Your task to perform on an android device: install app "Cash App" Image 0: 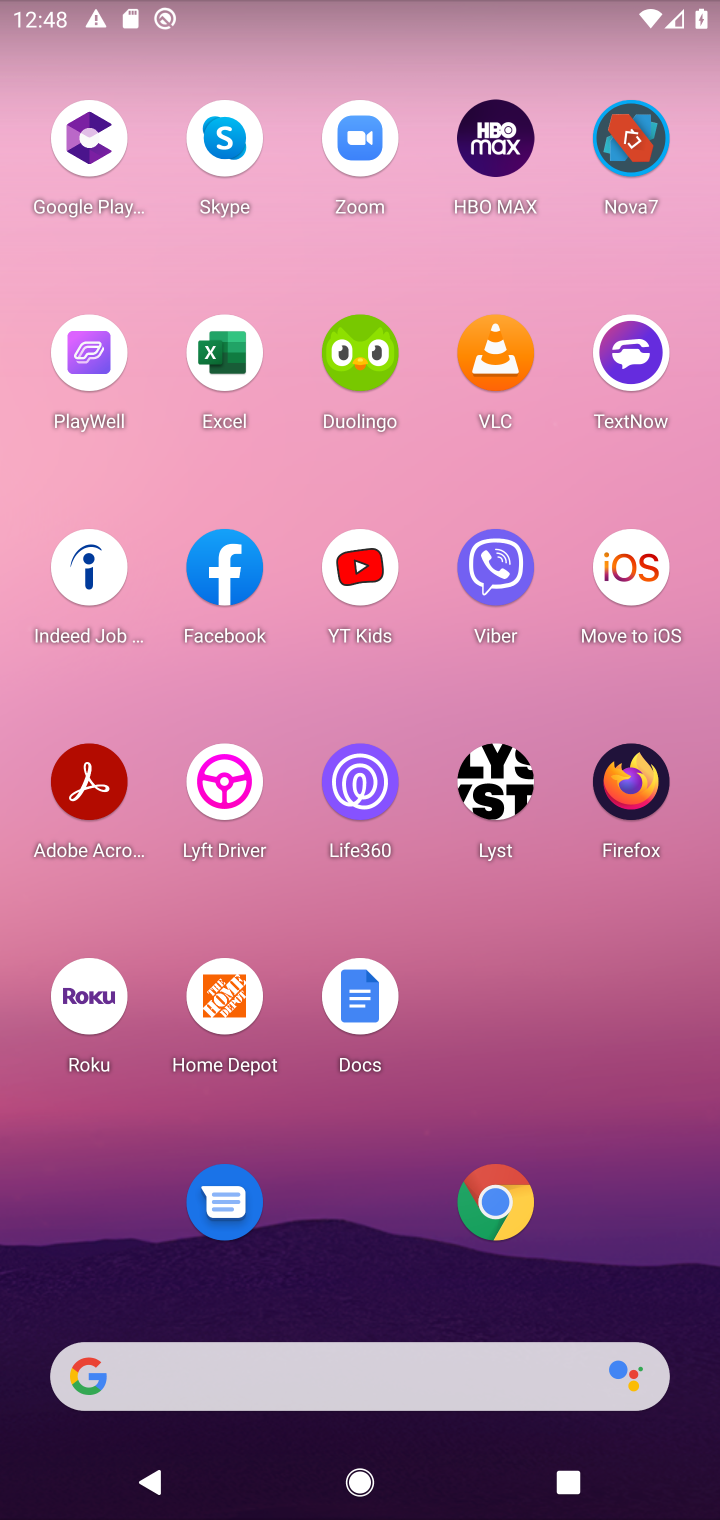
Step 0: press home button
Your task to perform on an android device: install app "Cash App" Image 1: 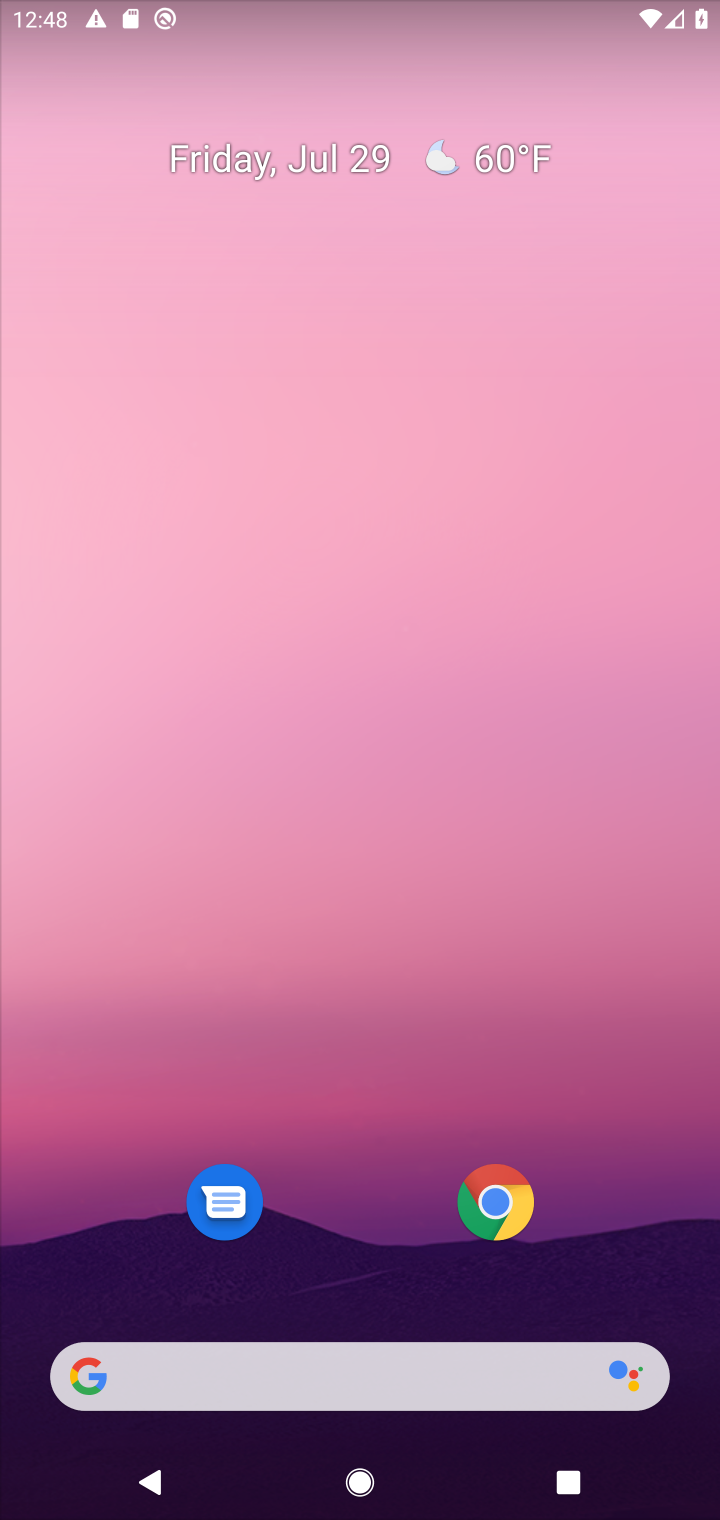
Step 1: click (392, 1378)
Your task to perform on an android device: install app "Cash App" Image 2: 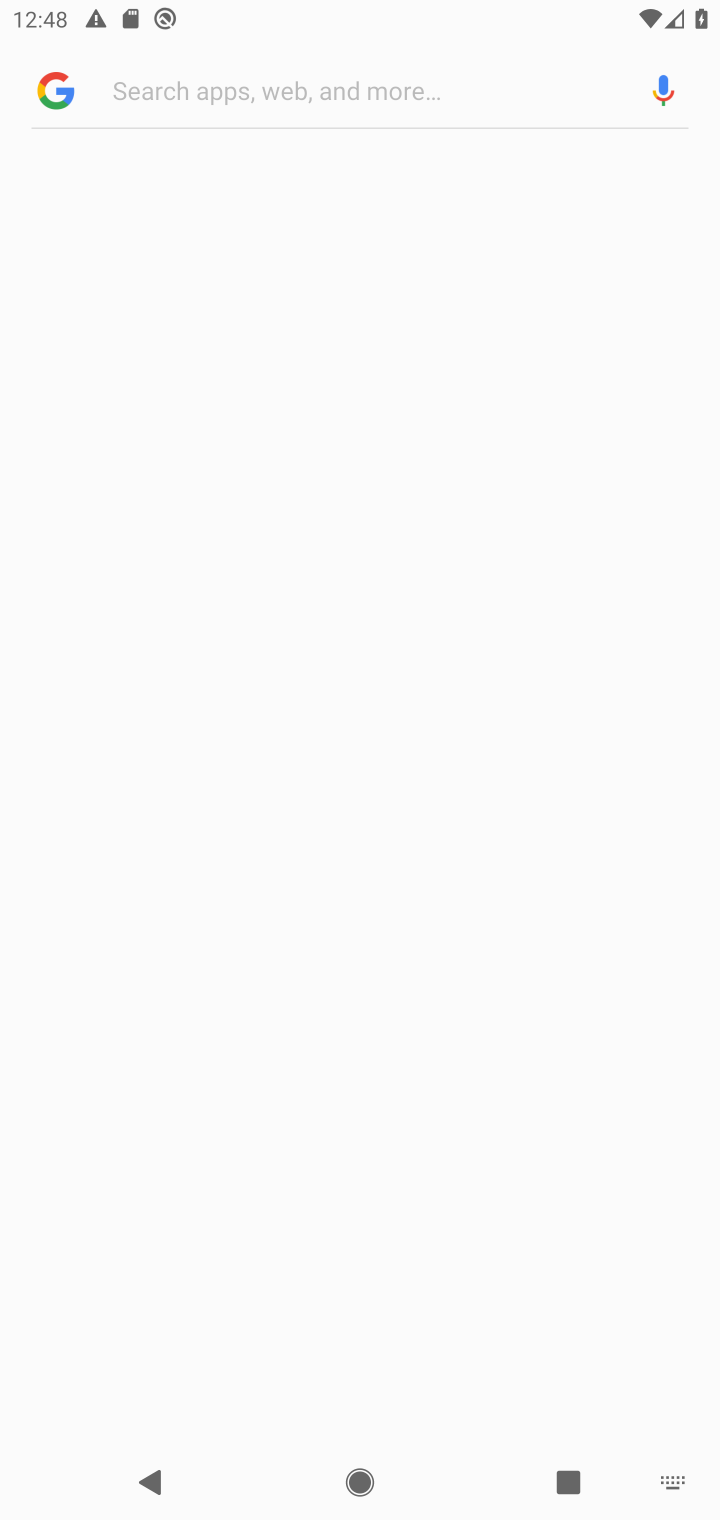
Step 2: type "cash"
Your task to perform on an android device: install app "Cash App" Image 3: 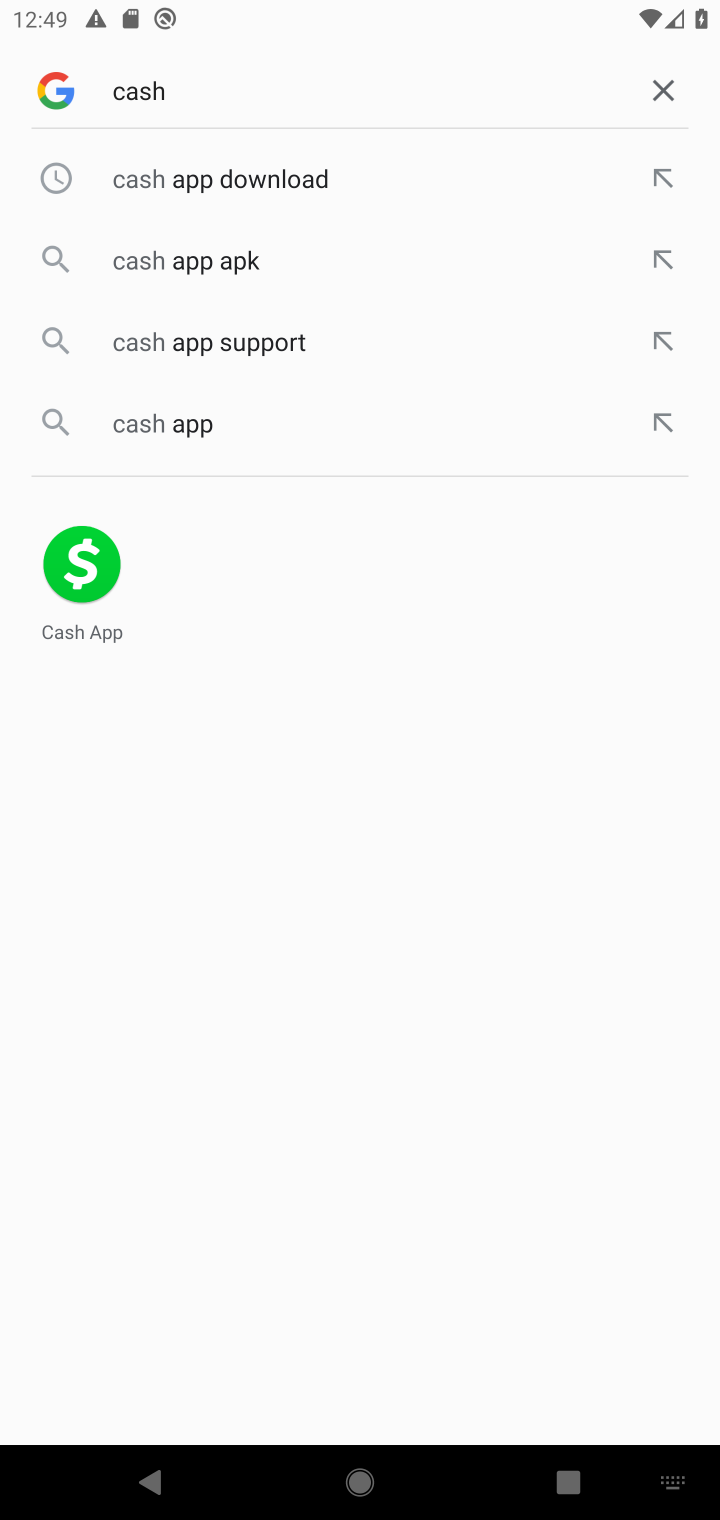
Step 3: click (255, 181)
Your task to perform on an android device: install app "Cash App" Image 4: 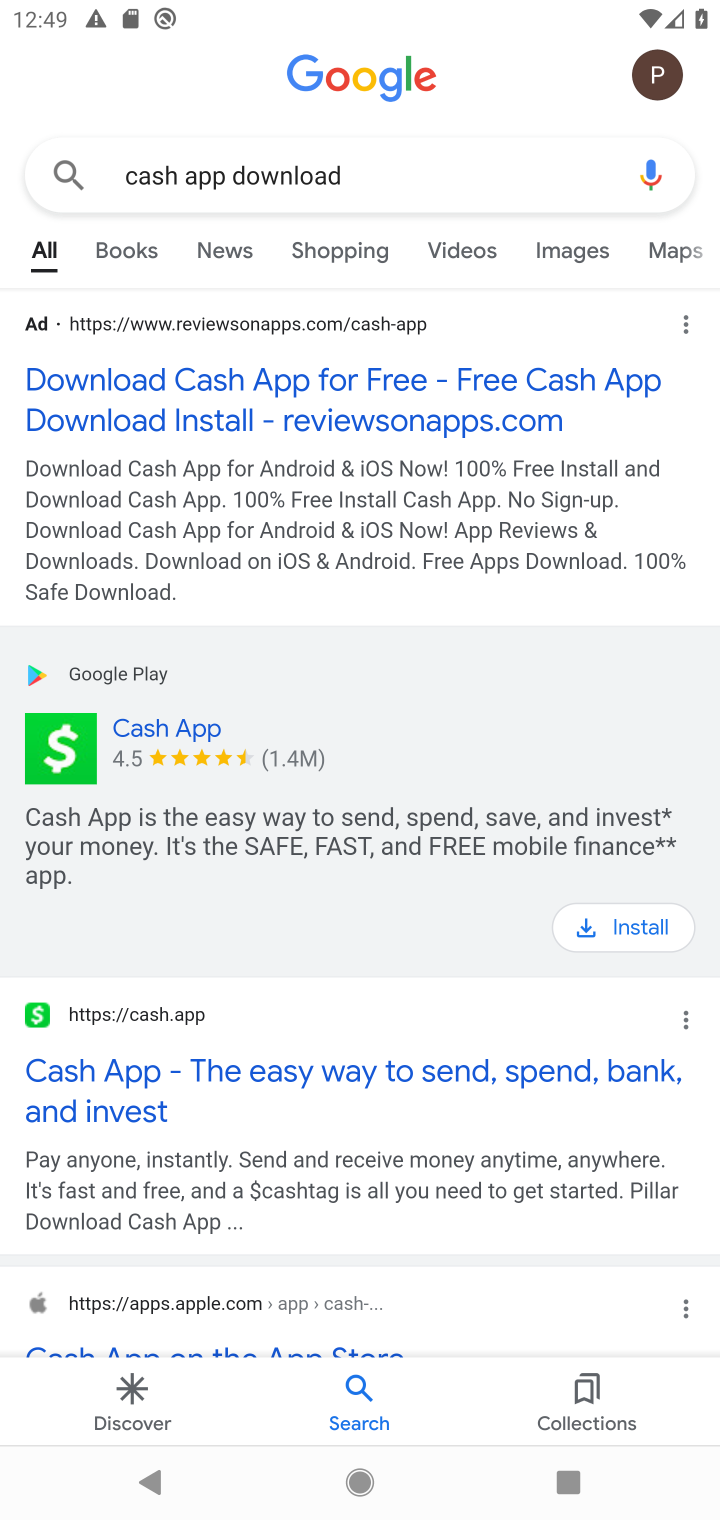
Step 4: click (608, 908)
Your task to perform on an android device: install app "Cash App" Image 5: 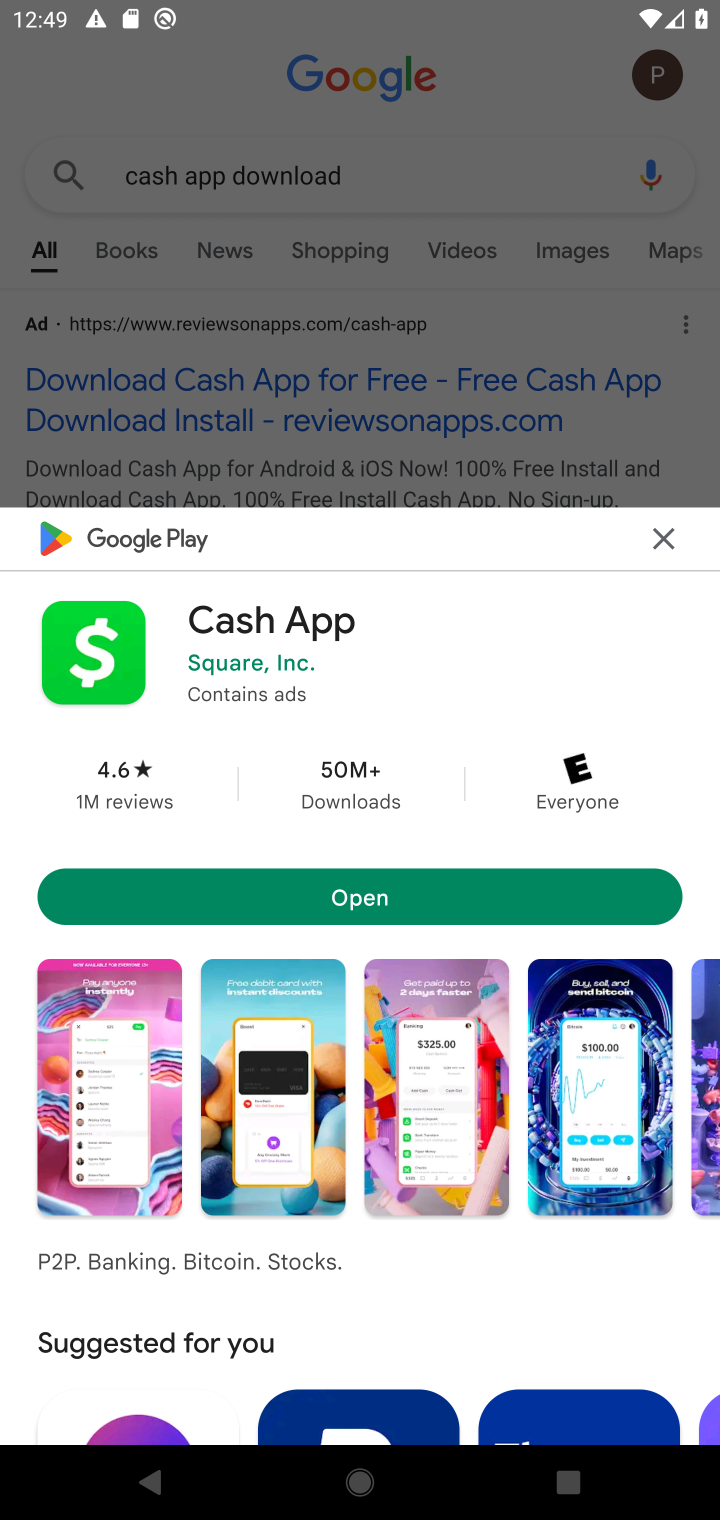
Step 5: click (434, 902)
Your task to perform on an android device: install app "Cash App" Image 6: 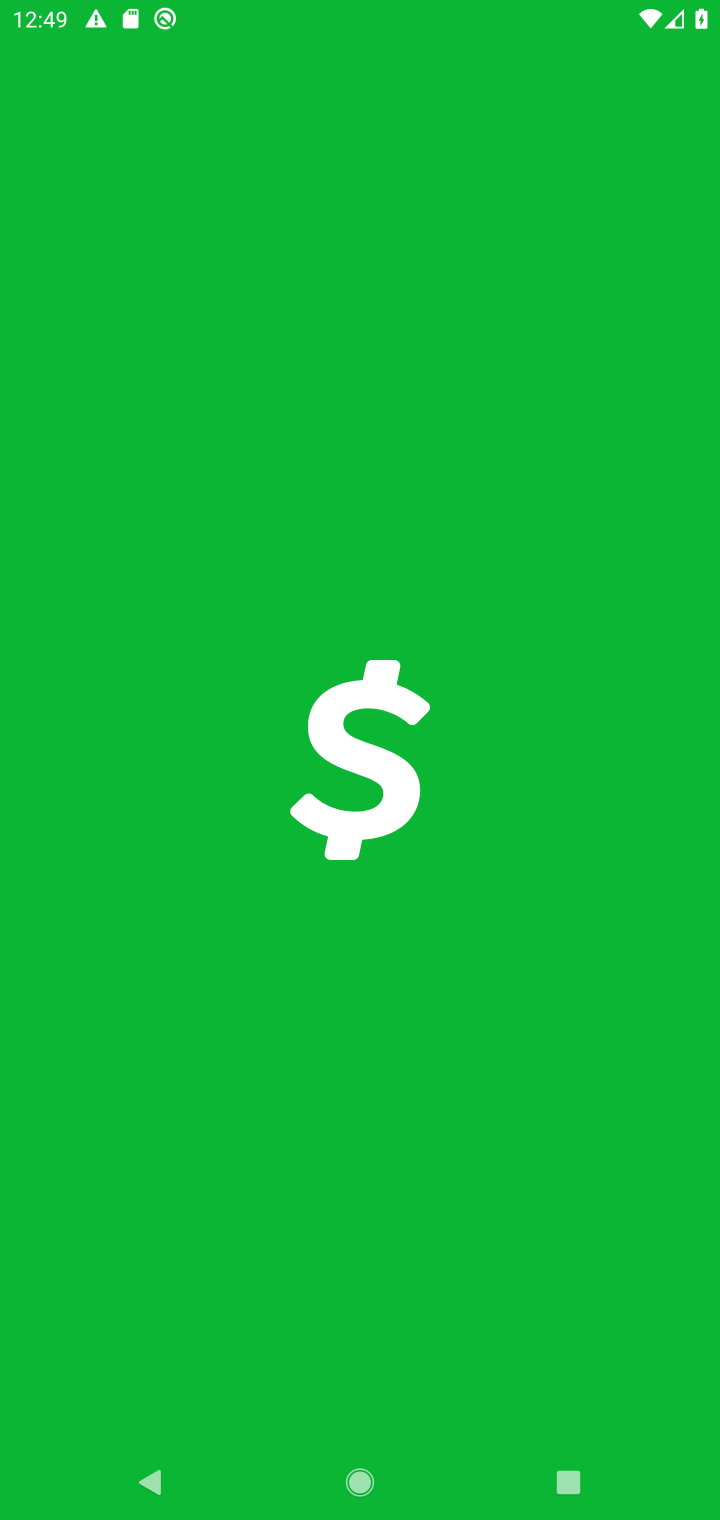
Step 6: task complete